Your task to perform on an android device: turn notification dots off Image 0: 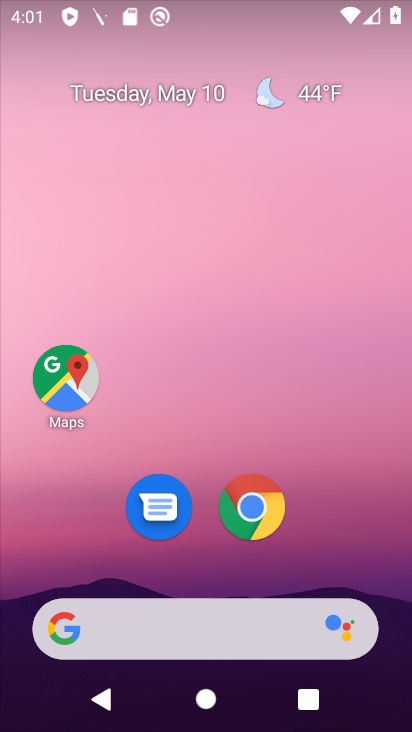
Step 0: drag from (253, 593) to (236, 27)
Your task to perform on an android device: turn notification dots off Image 1: 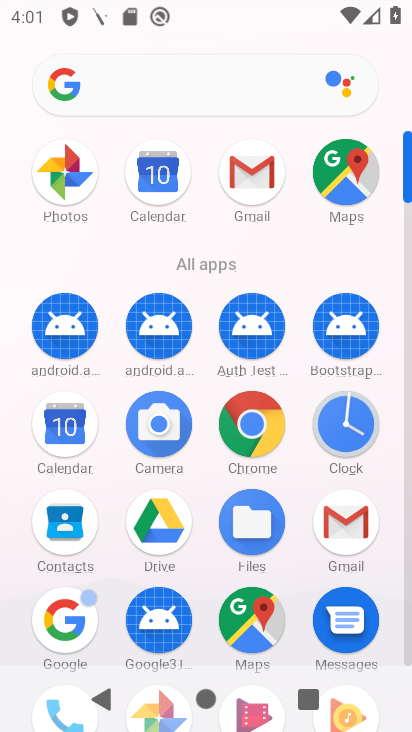
Step 1: drag from (146, 608) to (215, 204)
Your task to perform on an android device: turn notification dots off Image 2: 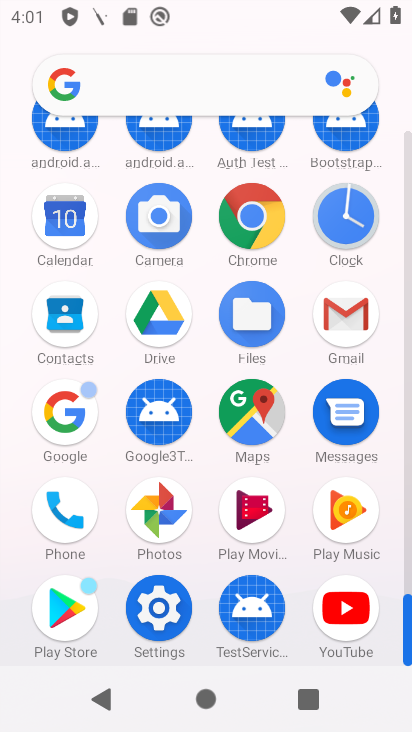
Step 2: click (165, 597)
Your task to perform on an android device: turn notification dots off Image 3: 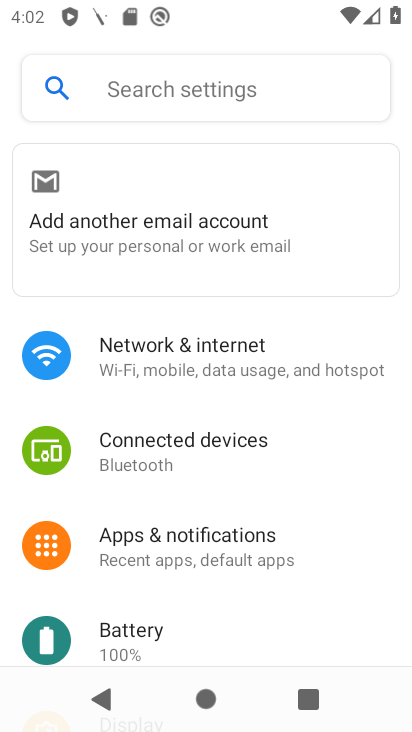
Step 3: click (170, 565)
Your task to perform on an android device: turn notification dots off Image 4: 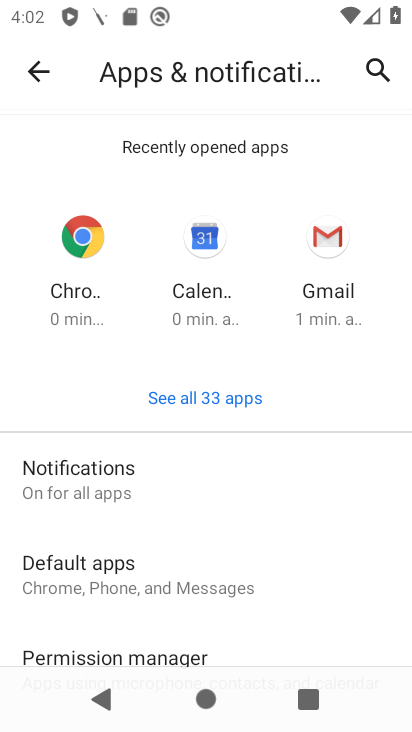
Step 4: click (95, 483)
Your task to perform on an android device: turn notification dots off Image 5: 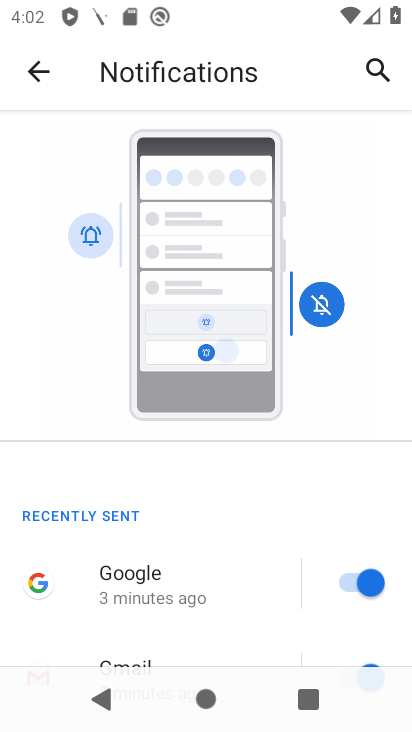
Step 5: drag from (272, 564) to (337, 198)
Your task to perform on an android device: turn notification dots off Image 6: 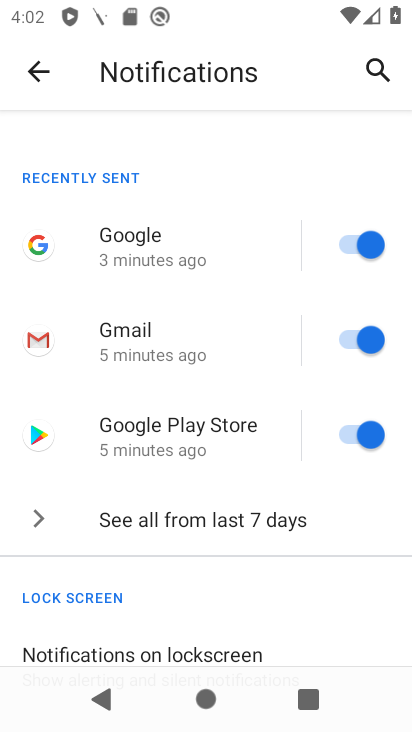
Step 6: drag from (278, 596) to (342, 182)
Your task to perform on an android device: turn notification dots off Image 7: 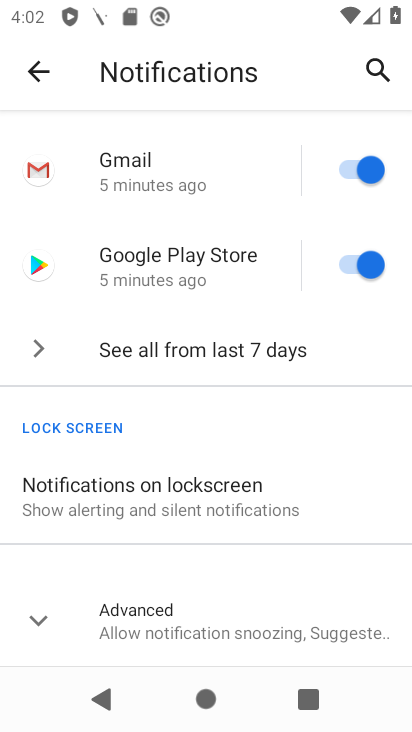
Step 7: click (137, 613)
Your task to perform on an android device: turn notification dots off Image 8: 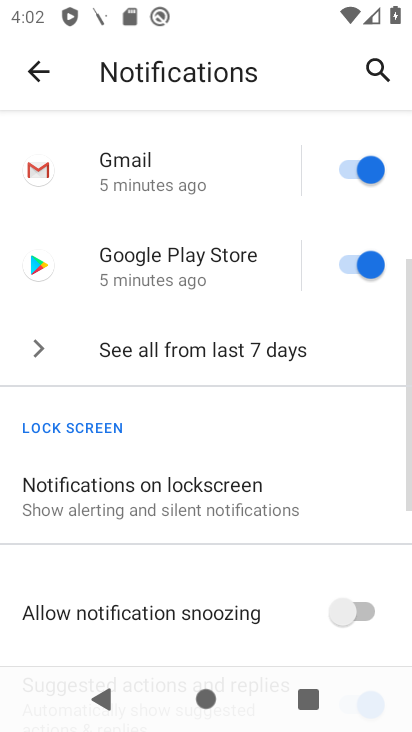
Step 8: drag from (137, 613) to (244, 174)
Your task to perform on an android device: turn notification dots off Image 9: 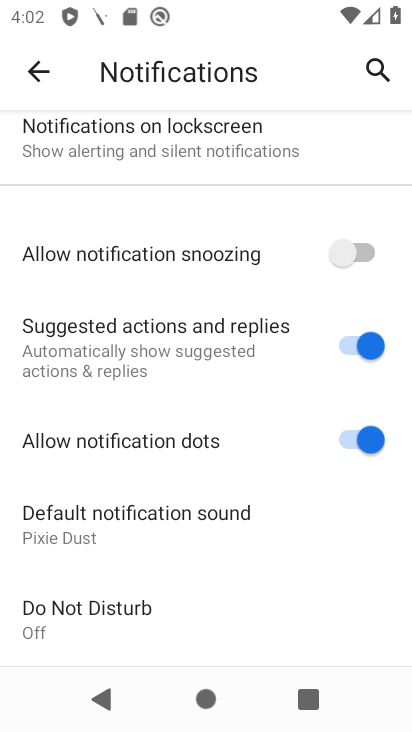
Step 9: click (341, 436)
Your task to perform on an android device: turn notification dots off Image 10: 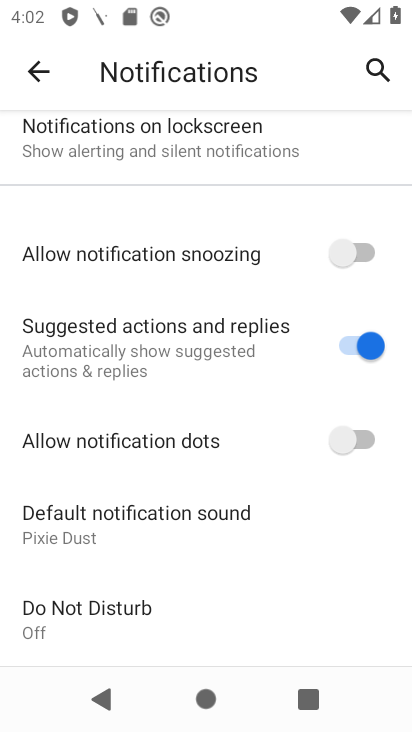
Step 10: task complete